Your task to perform on an android device: Go to calendar. Show me events next week Image 0: 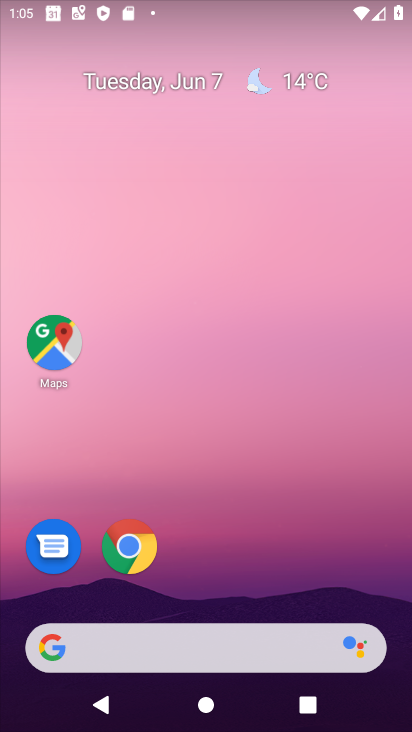
Step 0: drag from (211, 615) to (162, 122)
Your task to perform on an android device: Go to calendar. Show me events next week Image 1: 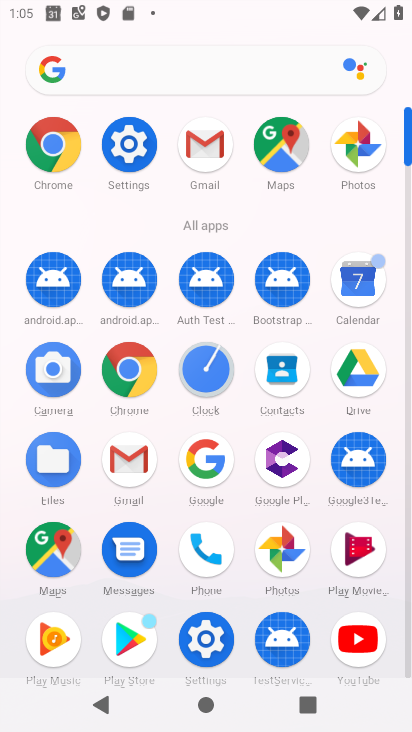
Step 1: click (344, 278)
Your task to perform on an android device: Go to calendar. Show me events next week Image 2: 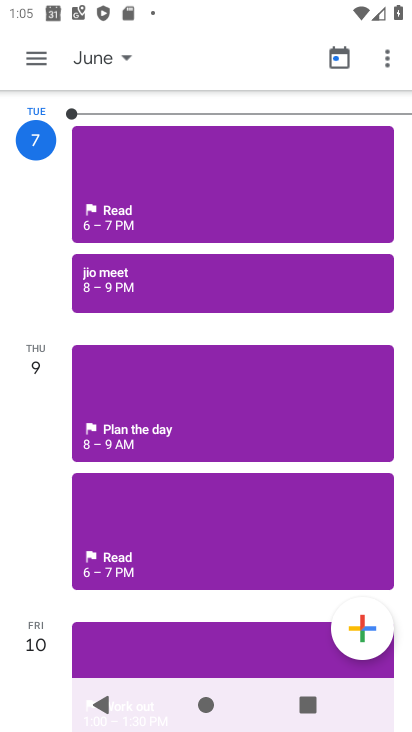
Step 2: click (19, 48)
Your task to perform on an android device: Go to calendar. Show me events next week Image 3: 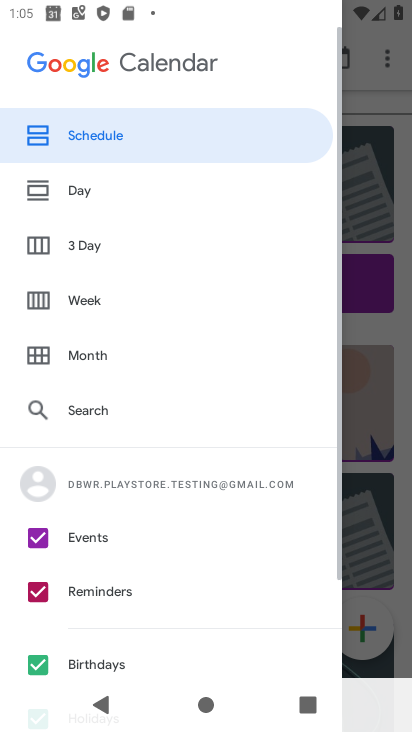
Step 3: click (102, 310)
Your task to perform on an android device: Go to calendar. Show me events next week Image 4: 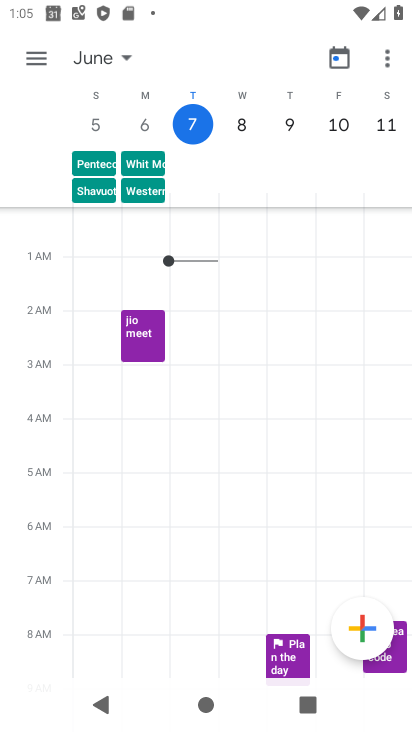
Step 4: task complete